Your task to perform on an android device: toggle data saver in the chrome app Image 0: 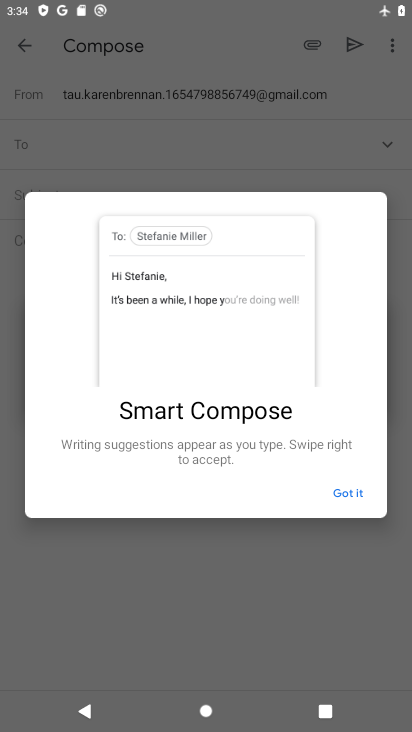
Step 0: press home button
Your task to perform on an android device: toggle data saver in the chrome app Image 1: 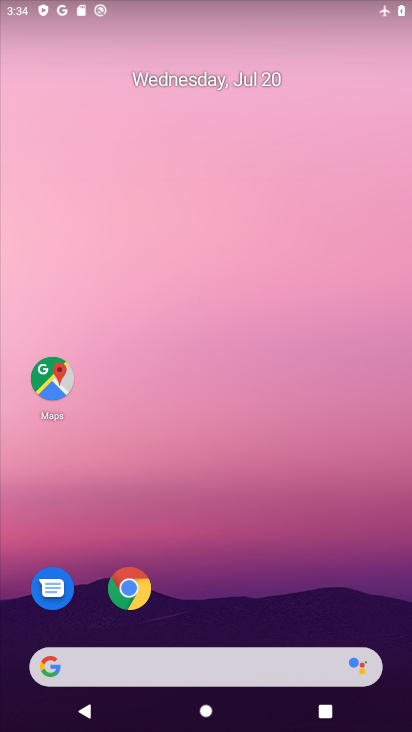
Step 1: click (121, 598)
Your task to perform on an android device: toggle data saver in the chrome app Image 2: 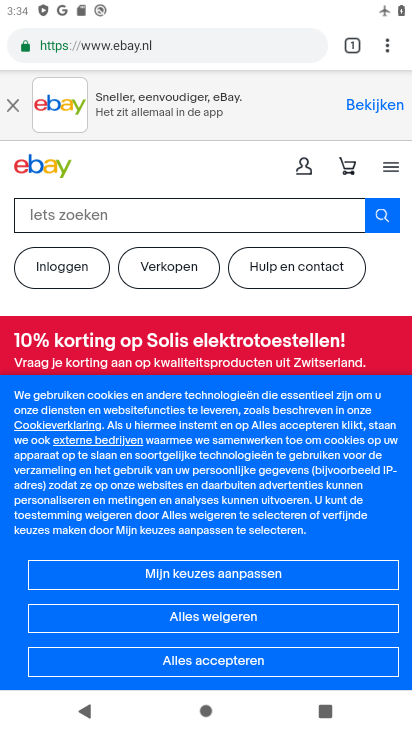
Step 2: click (397, 43)
Your task to perform on an android device: toggle data saver in the chrome app Image 3: 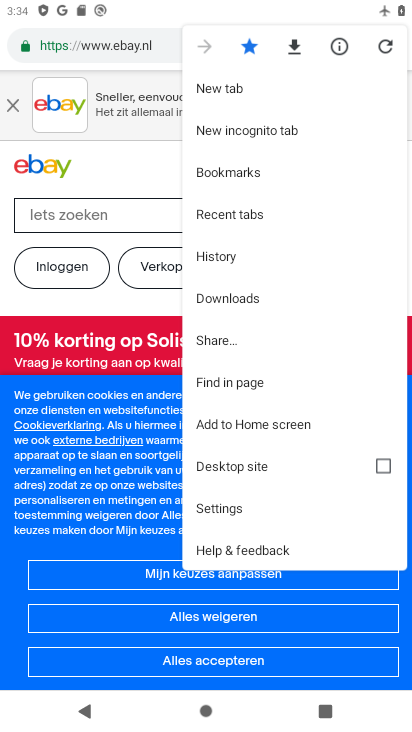
Step 3: click (240, 517)
Your task to perform on an android device: toggle data saver in the chrome app Image 4: 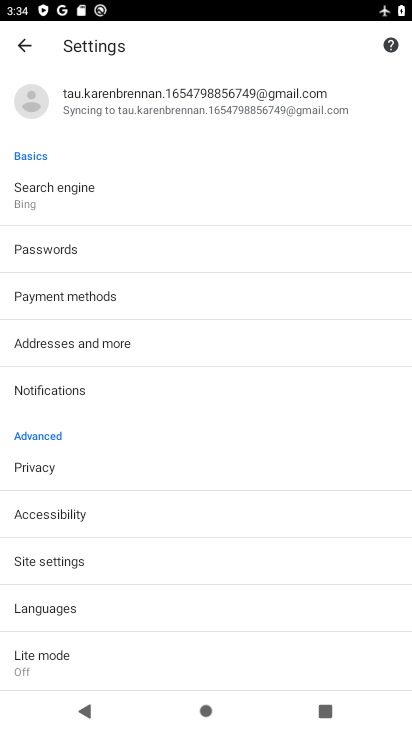
Step 4: click (68, 658)
Your task to perform on an android device: toggle data saver in the chrome app Image 5: 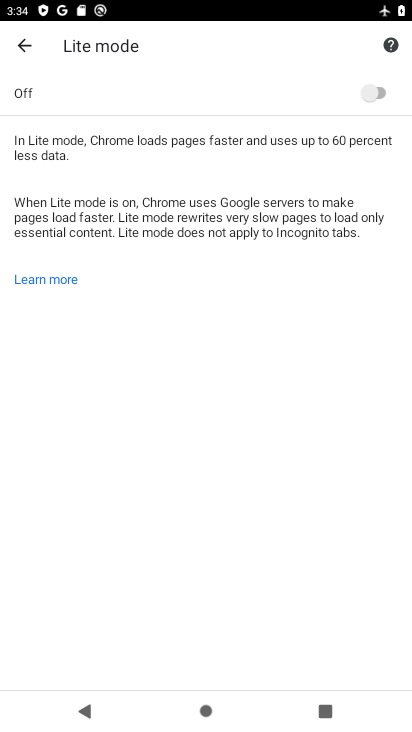
Step 5: click (369, 105)
Your task to perform on an android device: toggle data saver in the chrome app Image 6: 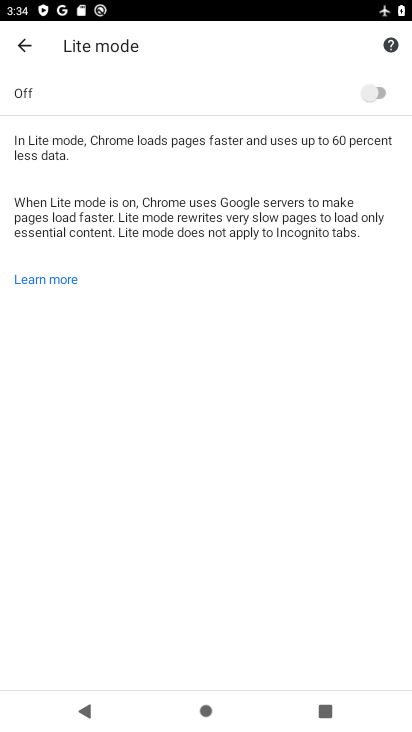
Step 6: click (369, 105)
Your task to perform on an android device: toggle data saver in the chrome app Image 7: 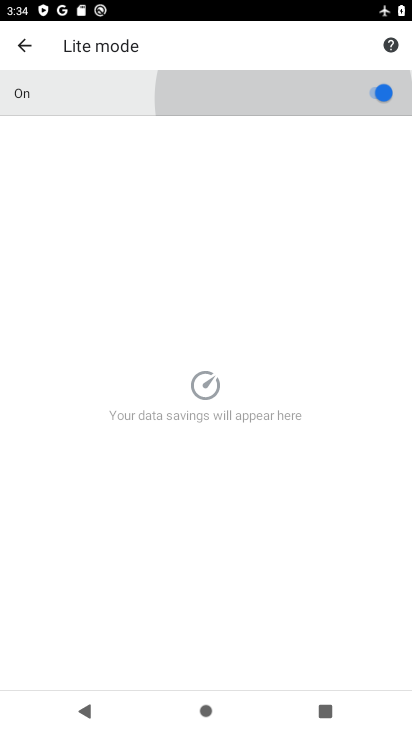
Step 7: click (369, 105)
Your task to perform on an android device: toggle data saver in the chrome app Image 8: 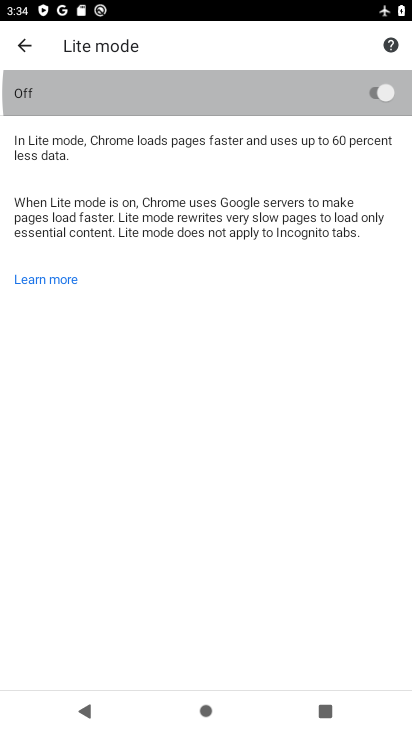
Step 8: click (369, 105)
Your task to perform on an android device: toggle data saver in the chrome app Image 9: 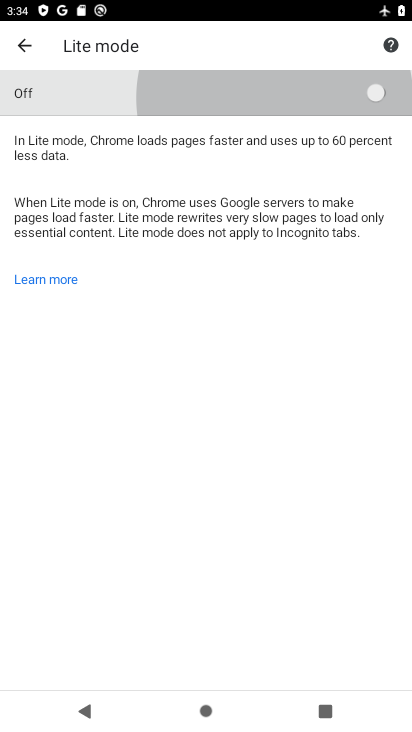
Step 9: click (369, 105)
Your task to perform on an android device: toggle data saver in the chrome app Image 10: 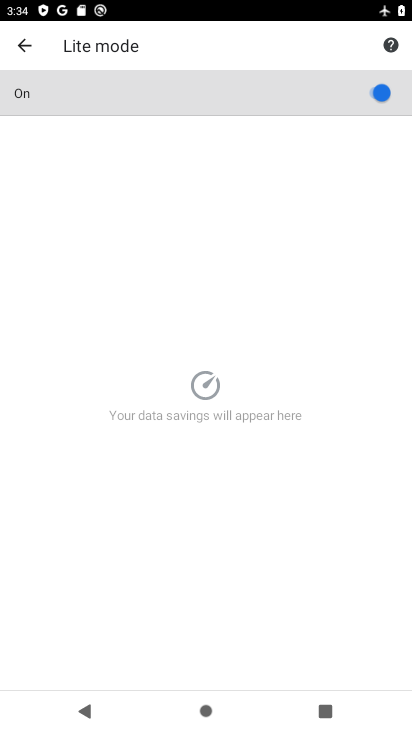
Step 10: click (369, 105)
Your task to perform on an android device: toggle data saver in the chrome app Image 11: 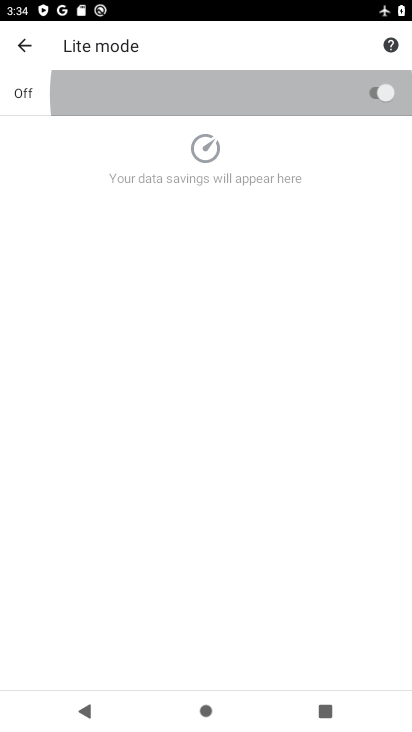
Step 11: click (369, 105)
Your task to perform on an android device: toggle data saver in the chrome app Image 12: 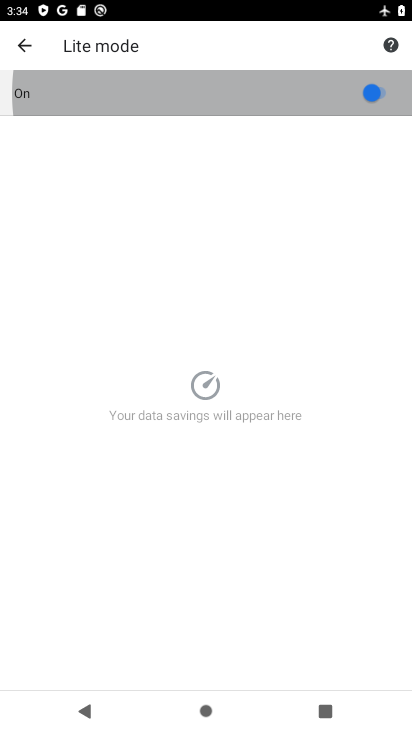
Step 12: click (369, 105)
Your task to perform on an android device: toggle data saver in the chrome app Image 13: 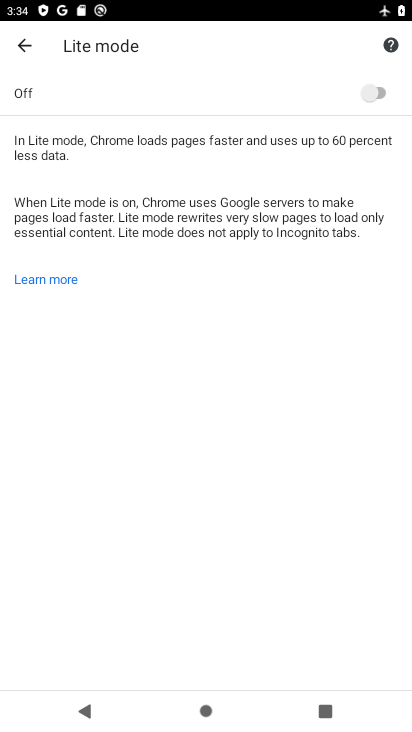
Step 13: task complete